Your task to perform on an android device: turn notification dots on Image 0: 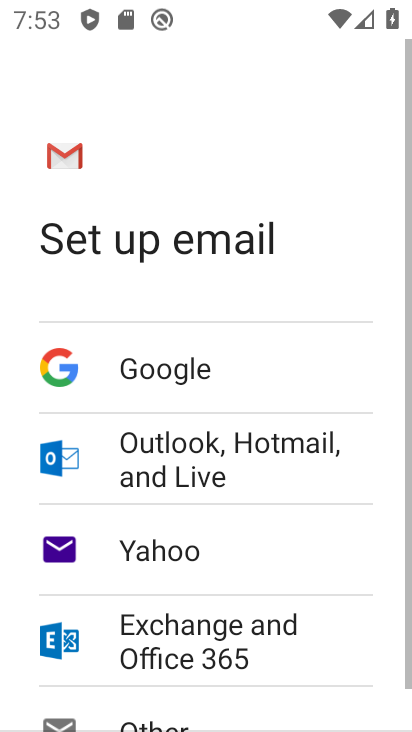
Step 0: press home button
Your task to perform on an android device: turn notification dots on Image 1: 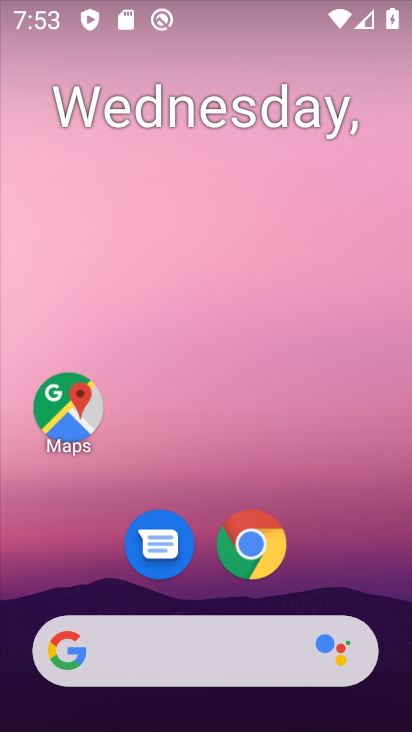
Step 1: drag from (212, 580) to (255, 181)
Your task to perform on an android device: turn notification dots on Image 2: 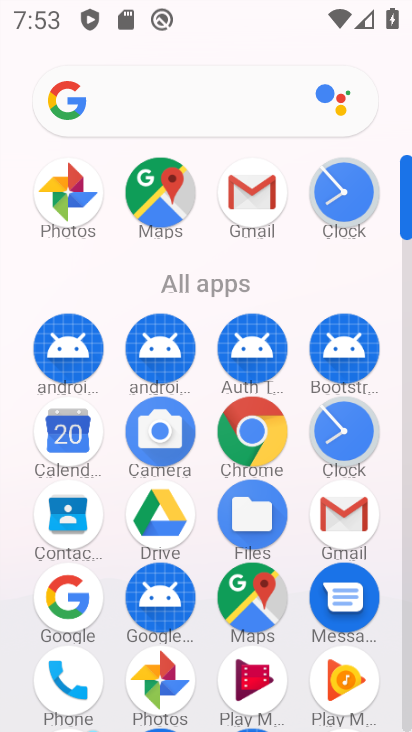
Step 2: drag from (204, 504) to (242, 140)
Your task to perform on an android device: turn notification dots on Image 3: 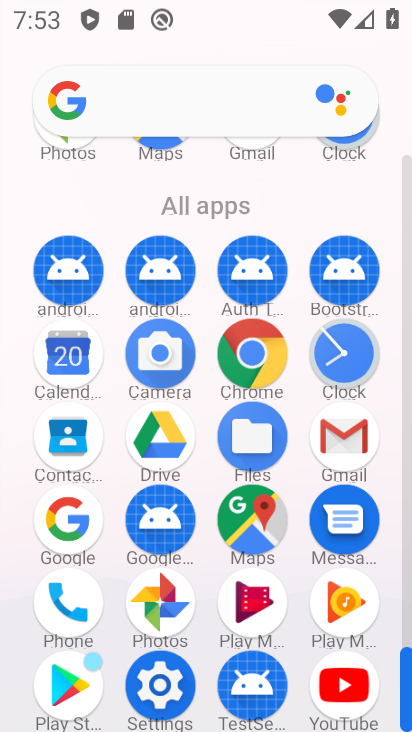
Step 3: click (163, 669)
Your task to perform on an android device: turn notification dots on Image 4: 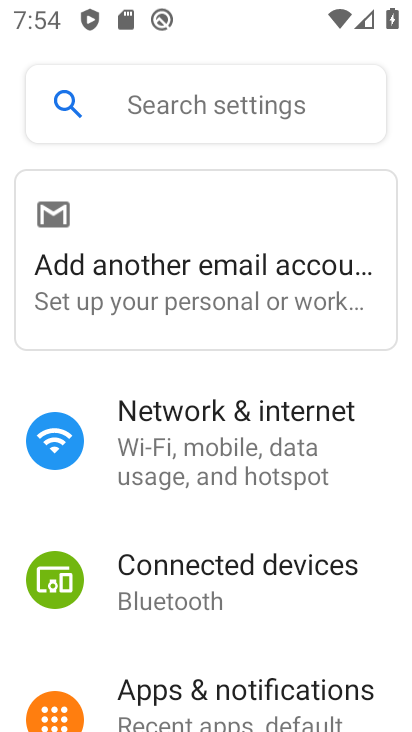
Step 4: drag from (244, 621) to (223, 271)
Your task to perform on an android device: turn notification dots on Image 5: 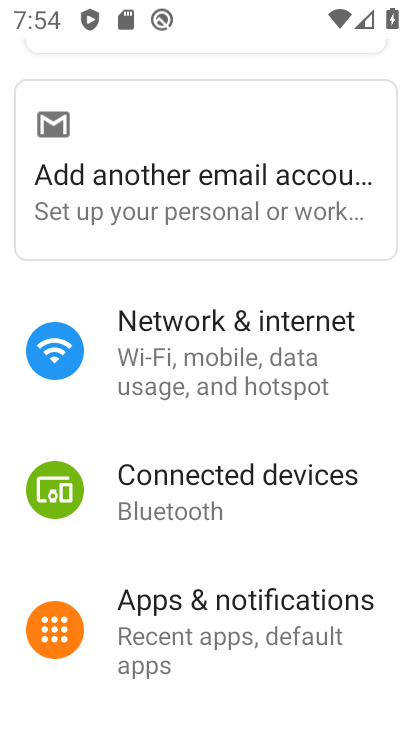
Step 5: click (200, 587)
Your task to perform on an android device: turn notification dots on Image 6: 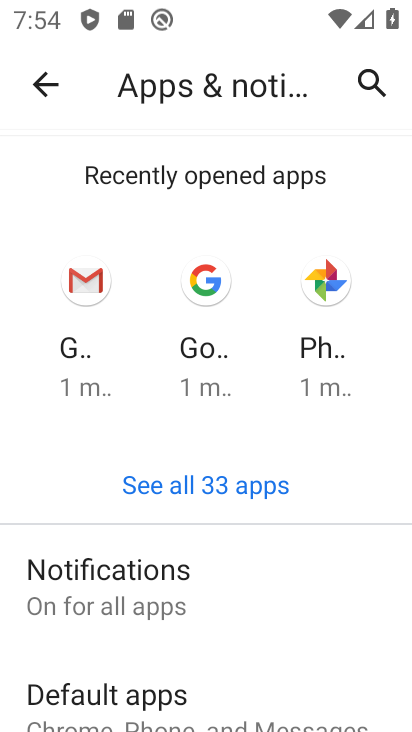
Step 6: click (172, 593)
Your task to perform on an android device: turn notification dots on Image 7: 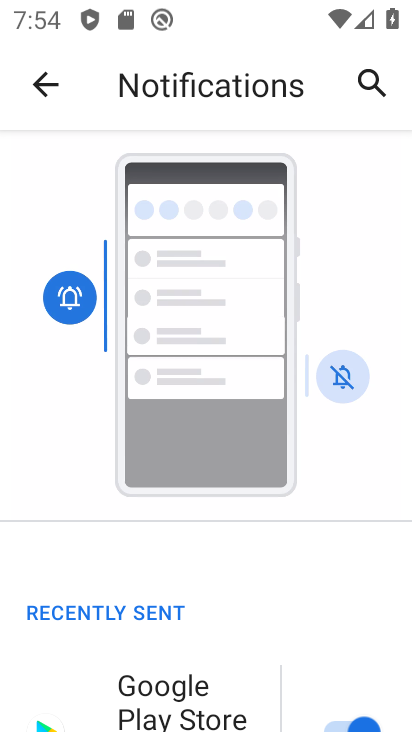
Step 7: drag from (229, 648) to (241, 243)
Your task to perform on an android device: turn notification dots on Image 8: 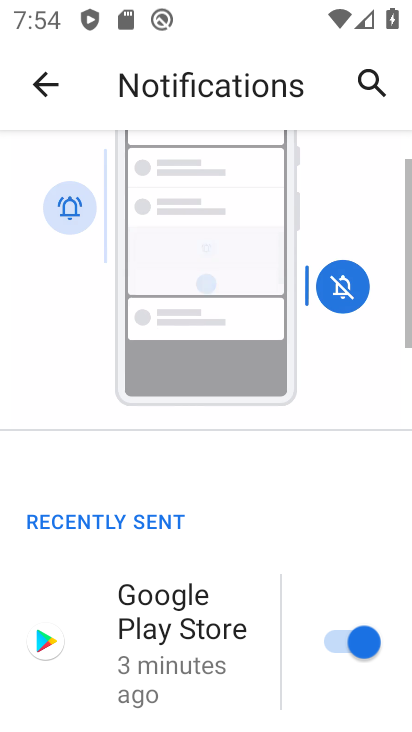
Step 8: drag from (268, 304) to (275, 255)
Your task to perform on an android device: turn notification dots on Image 9: 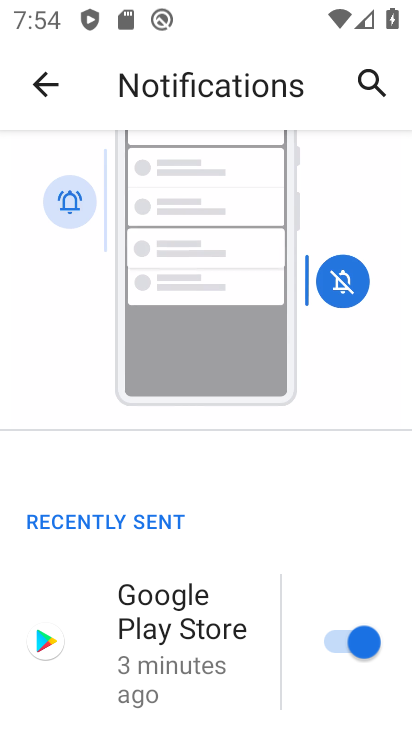
Step 9: drag from (243, 369) to (257, 276)
Your task to perform on an android device: turn notification dots on Image 10: 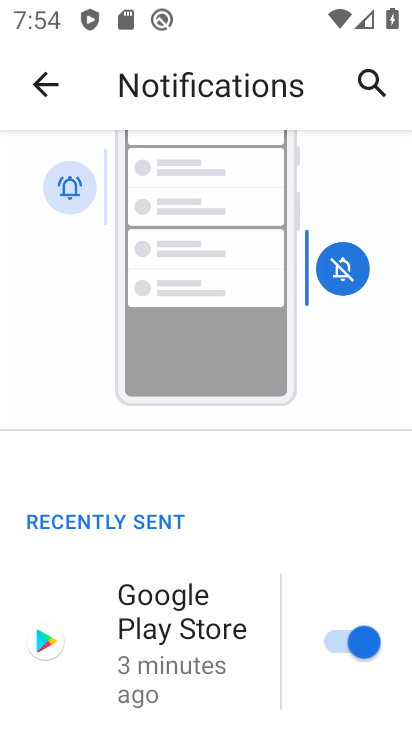
Step 10: drag from (244, 512) to (265, 274)
Your task to perform on an android device: turn notification dots on Image 11: 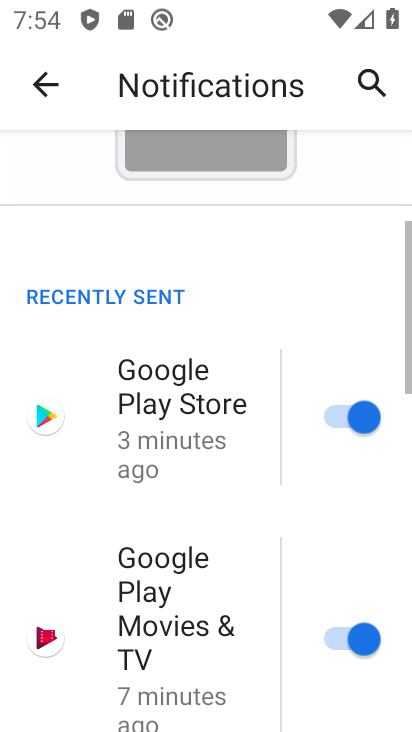
Step 11: drag from (198, 616) to (198, 279)
Your task to perform on an android device: turn notification dots on Image 12: 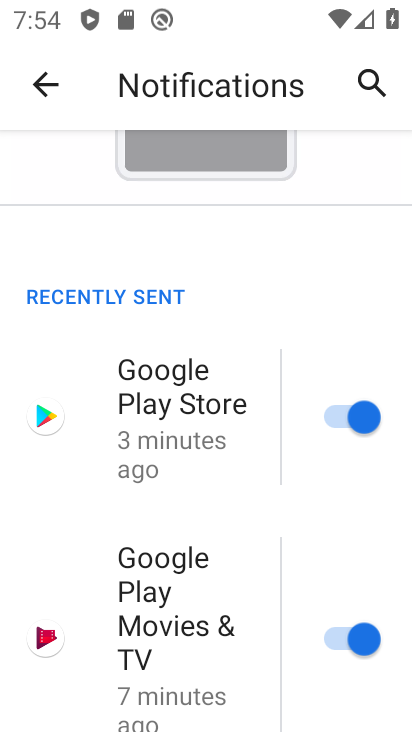
Step 12: drag from (183, 698) to (205, 368)
Your task to perform on an android device: turn notification dots on Image 13: 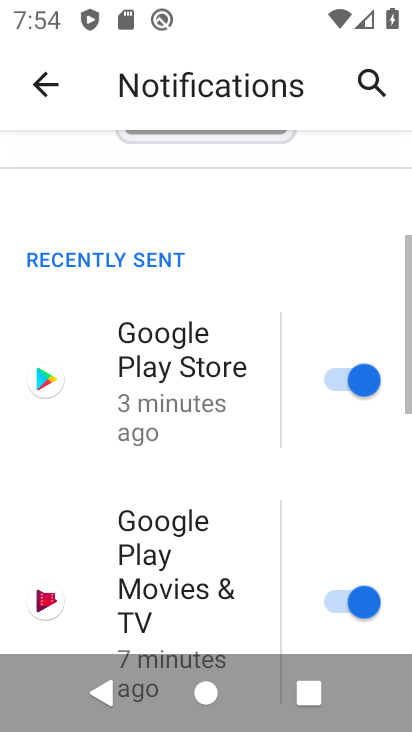
Step 13: drag from (230, 592) to (252, 259)
Your task to perform on an android device: turn notification dots on Image 14: 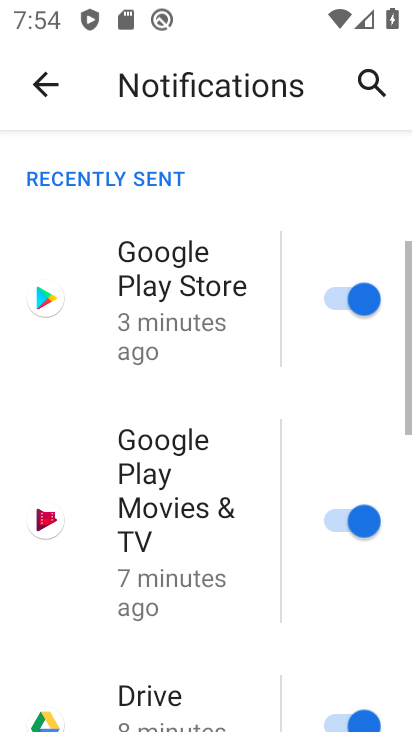
Step 14: drag from (248, 335) to (258, 263)
Your task to perform on an android device: turn notification dots on Image 15: 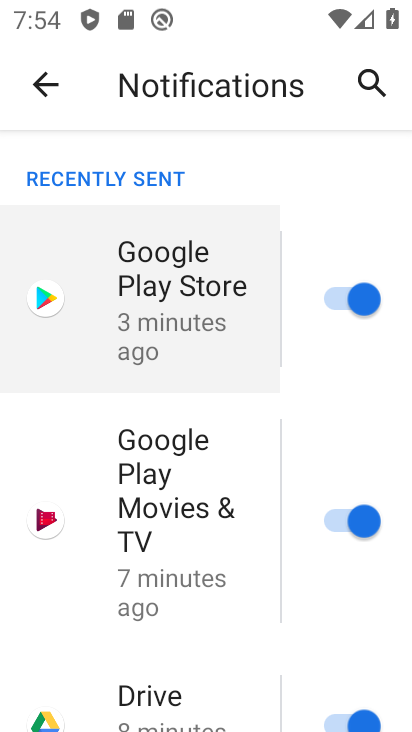
Step 15: drag from (243, 607) to (264, 281)
Your task to perform on an android device: turn notification dots on Image 16: 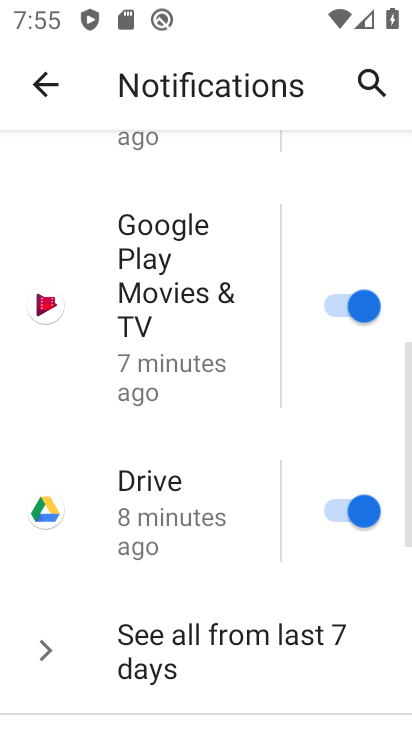
Step 16: drag from (261, 589) to (255, 288)
Your task to perform on an android device: turn notification dots on Image 17: 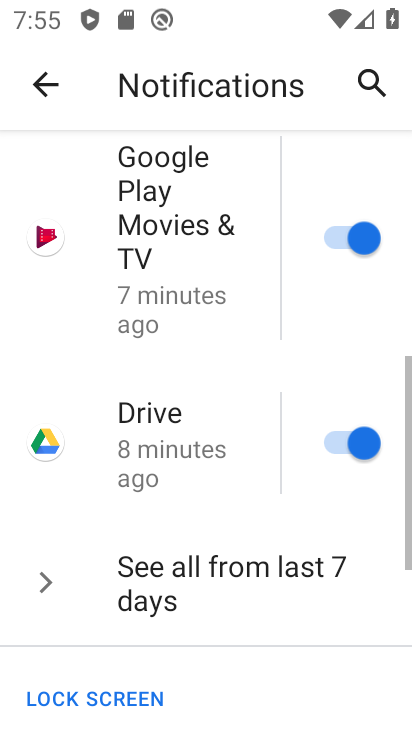
Step 17: drag from (228, 630) to (244, 254)
Your task to perform on an android device: turn notification dots on Image 18: 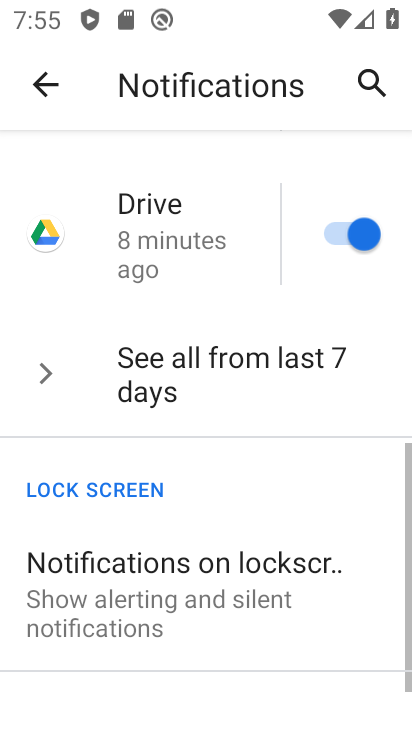
Step 18: drag from (200, 637) to (237, 280)
Your task to perform on an android device: turn notification dots on Image 19: 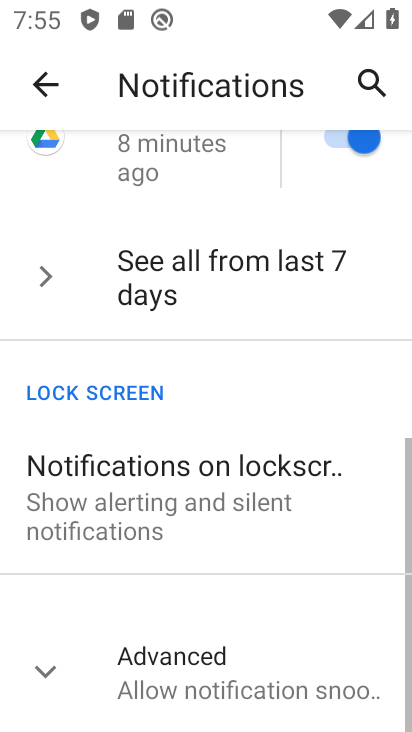
Step 19: drag from (210, 654) to (225, 405)
Your task to perform on an android device: turn notification dots on Image 20: 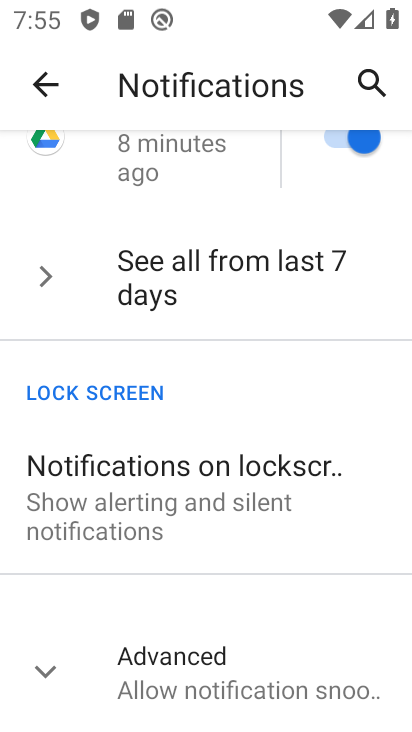
Step 20: click (153, 657)
Your task to perform on an android device: turn notification dots on Image 21: 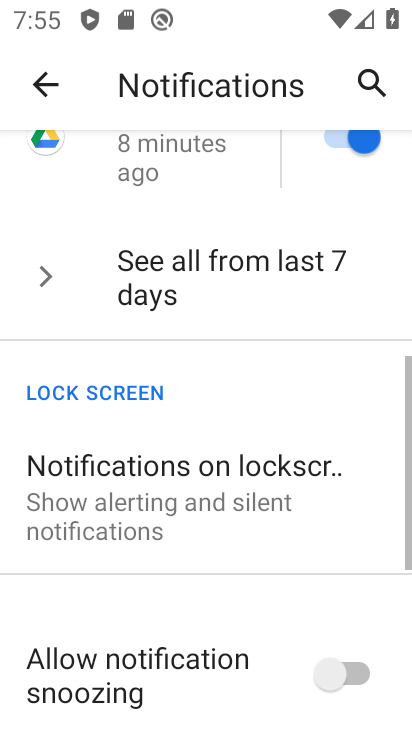
Step 21: task complete